Your task to perform on an android device: Do I have any events tomorrow? Image 0: 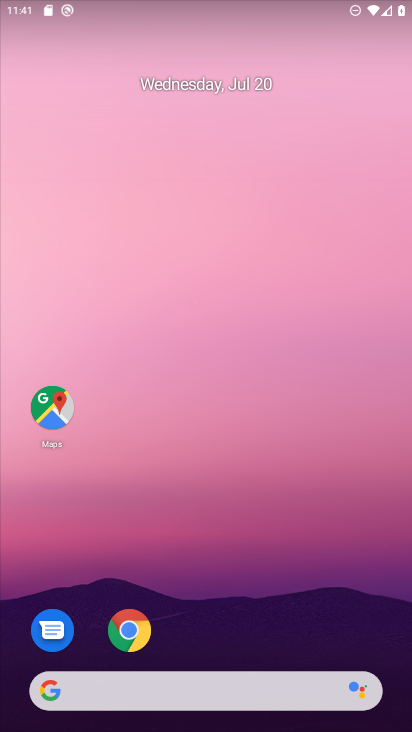
Step 0: drag from (239, 697) to (188, 143)
Your task to perform on an android device: Do I have any events tomorrow? Image 1: 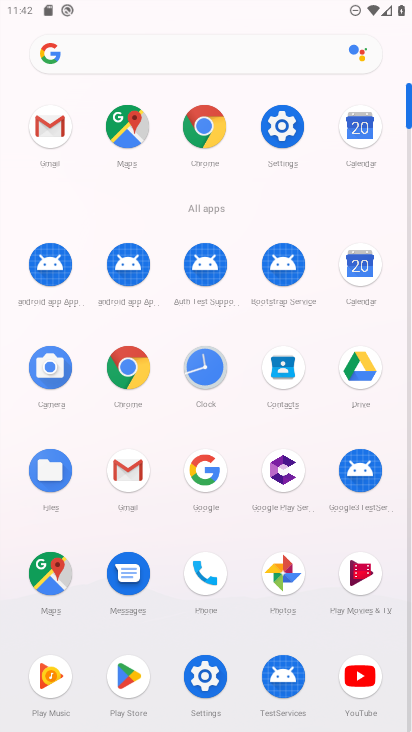
Step 1: click (362, 277)
Your task to perform on an android device: Do I have any events tomorrow? Image 2: 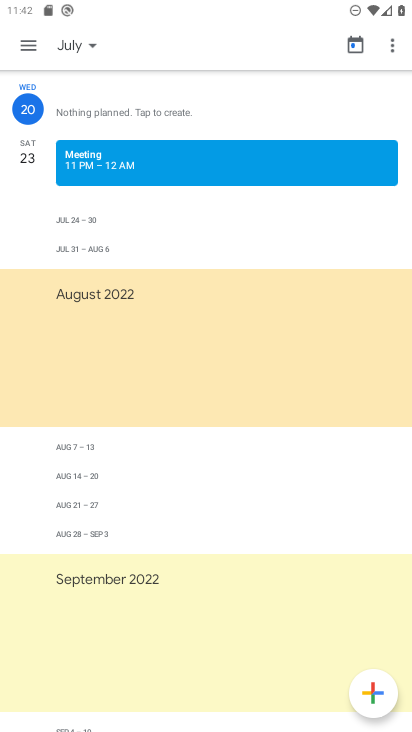
Step 2: click (40, 41)
Your task to perform on an android device: Do I have any events tomorrow? Image 3: 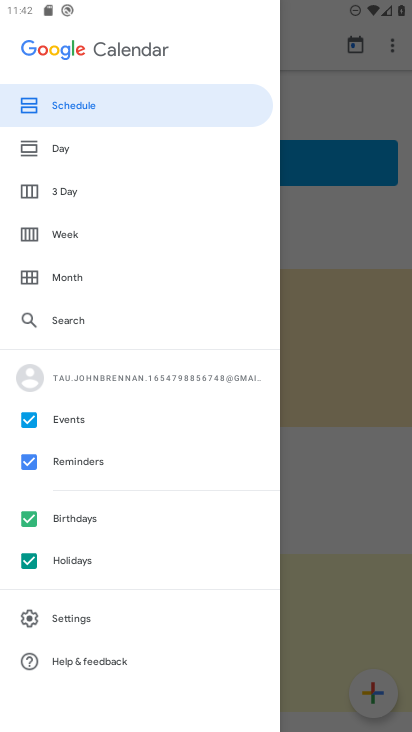
Step 3: click (86, 275)
Your task to perform on an android device: Do I have any events tomorrow? Image 4: 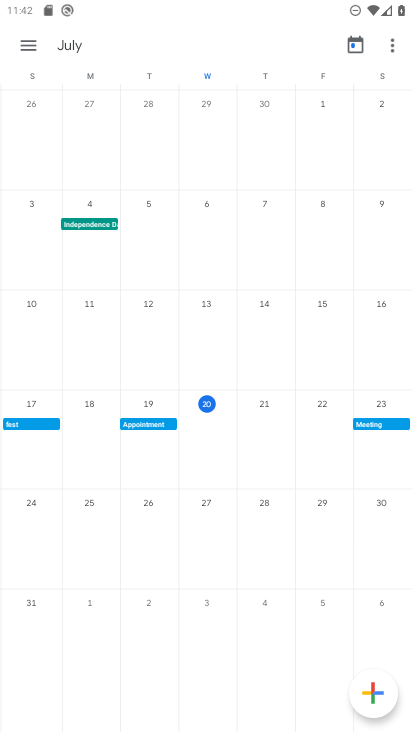
Step 4: click (258, 429)
Your task to perform on an android device: Do I have any events tomorrow? Image 5: 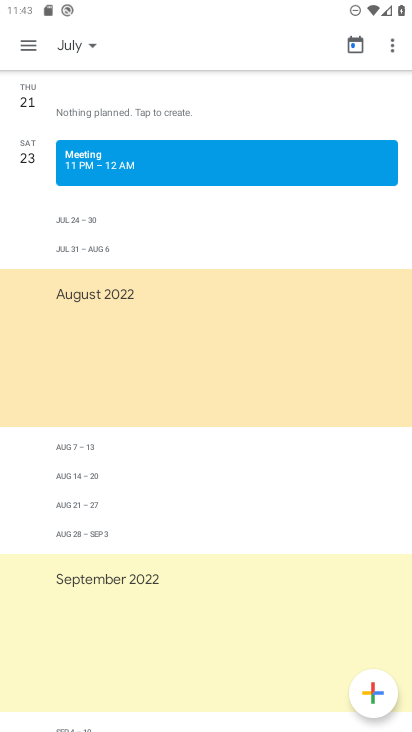
Step 5: task complete